Your task to perform on an android device: Open Wikipedia Image 0: 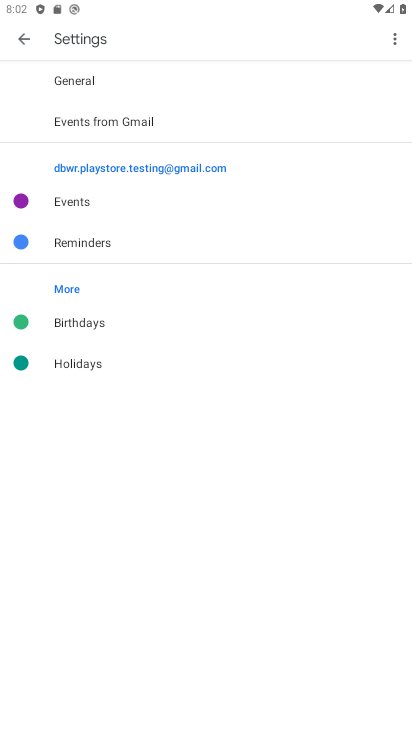
Step 0: click (198, 560)
Your task to perform on an android device: Open Wikipedia Image 1: 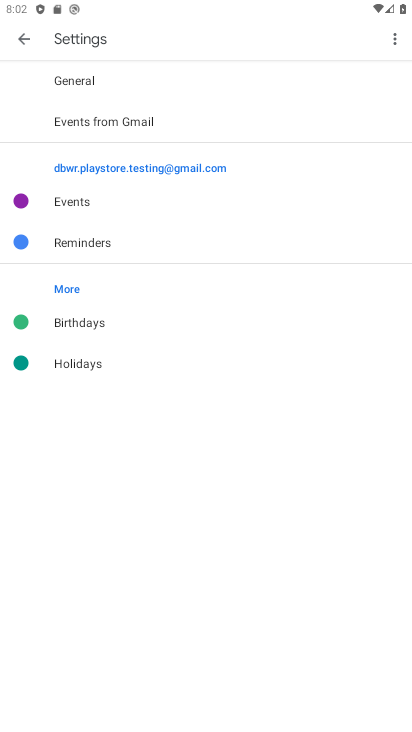
Step 1: press home button
Your task to perform on an android device: Open Wikipedia Image 2: 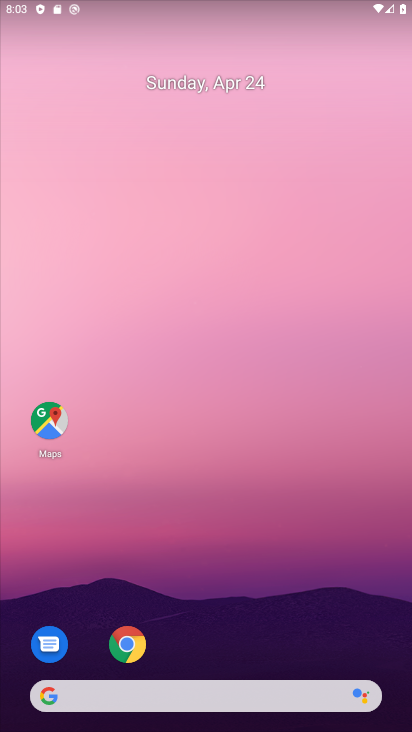
Step 2: drag from (206, 526) to (227, 154)
Your task to perform on an android device: Open Wikipedia Image 3: 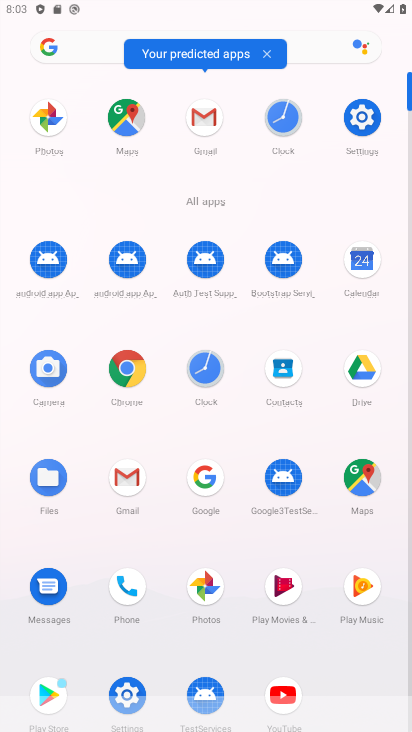
Step 3: click (125, 364)
Your task to perform on an android device: Open Wikipedia Image 4: 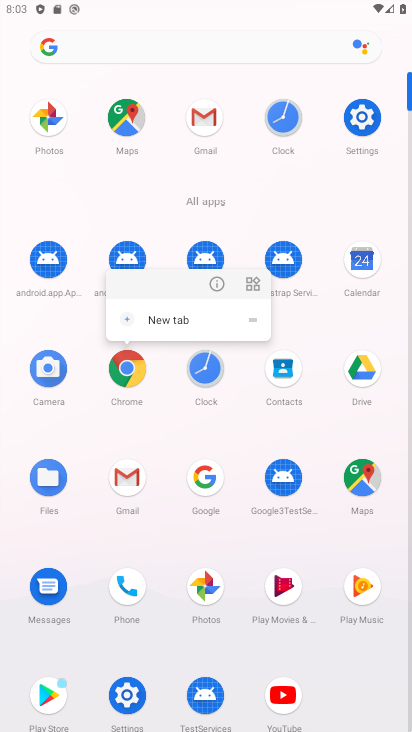
Step 4: click (218, 278)
Your task to perform on an android device: Open Wikipedia Image 5: 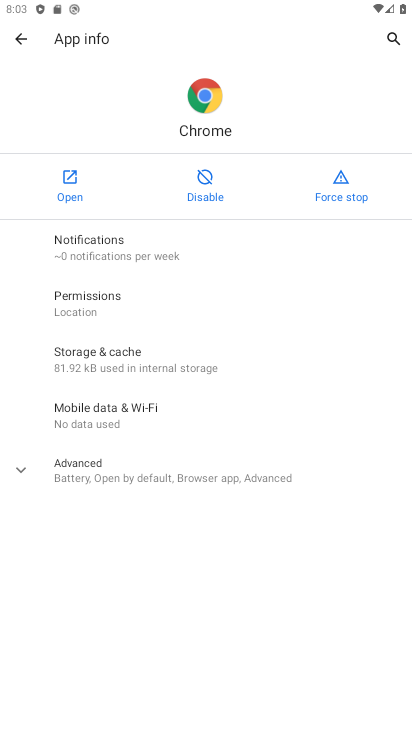
Step 5: click (63, 189)
Your task to perform on an android device: Open Wikipedia Image 6: 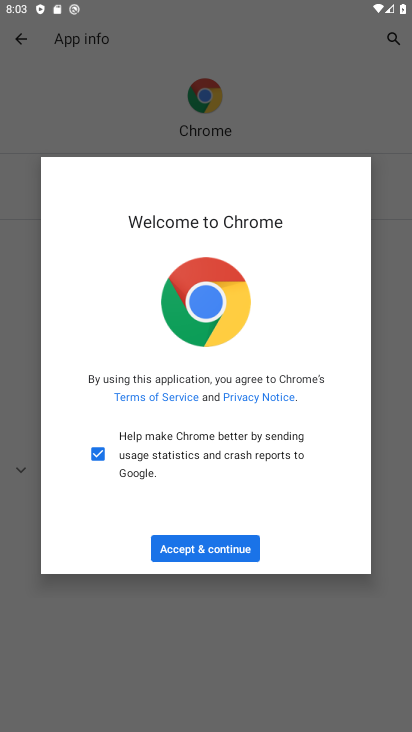
Step 6: click (236, 551)
Your task to perform on an android device: Open Wikipedia Image 7: 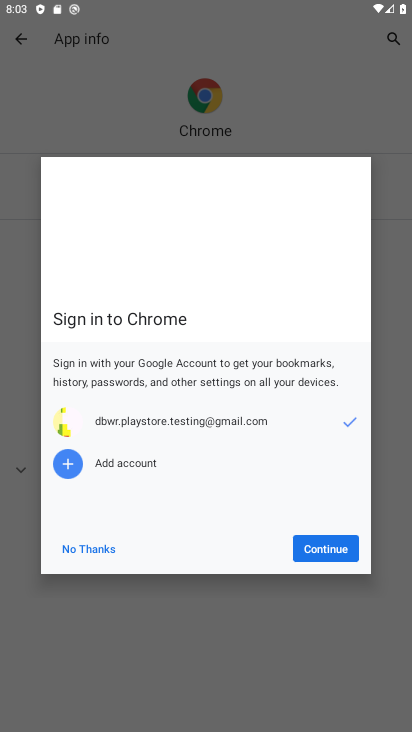
Step 7: click (92, 544)
Your task to perform on an android device: Open Wikipedia Image 8: 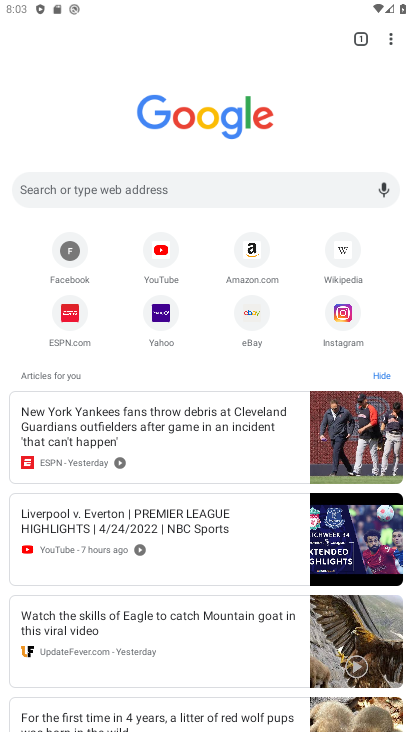
Step 8: click (347, 265)
Your task to perform on an android device: Open Wikipedia Image 9: 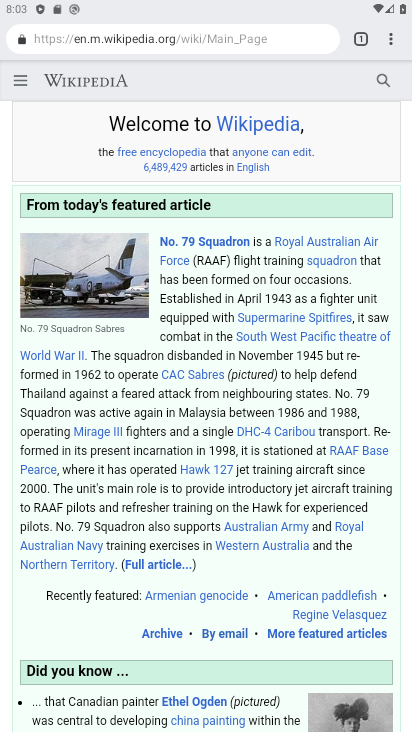
Step 9: task complete